Your task to perform on an android device: set default search engine in the chrome app Image 0: 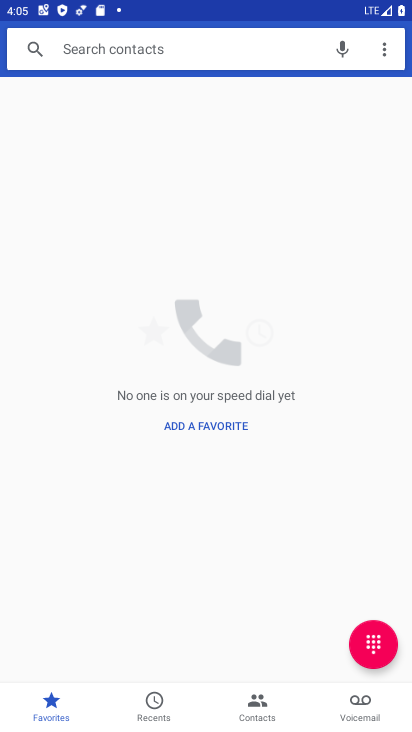
Step 0: press back button
Your task to perform on an android device: set default search engine in the chrome app Image 1: 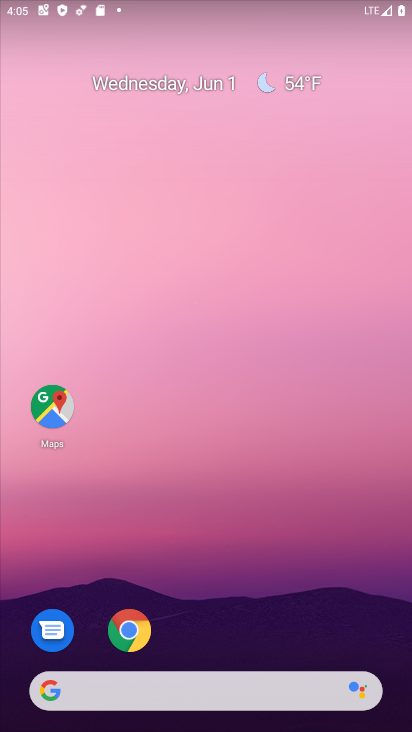
Step 1: drag from (289, 576) to (296, 34)
Your task to perform on an android device: set default search engine in the chrome app Image 2: 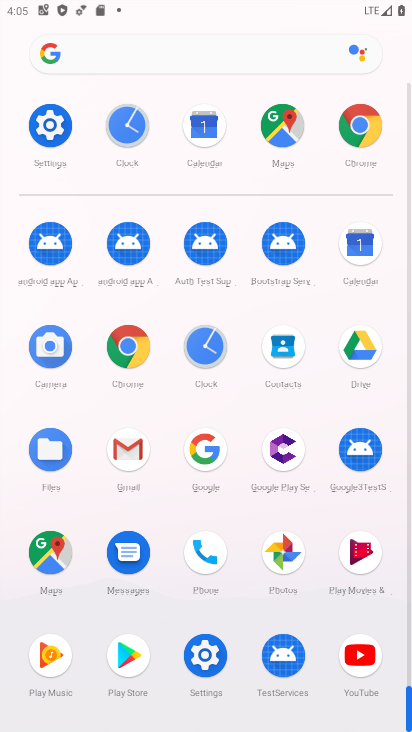
Step 2: drag from (13, 579) to (11, 204)
Your task to perform on an android device: set default search engine in the chrome app Image 3: 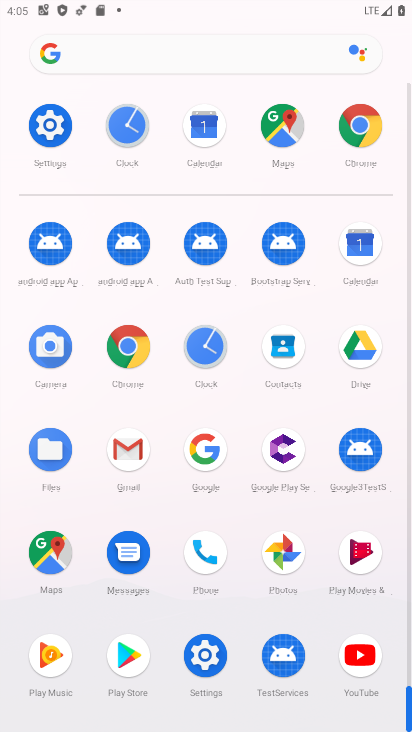
Step 3: click (127, 340)
Your task to perform on an android device: set default search engine in the chrome app Image 4: 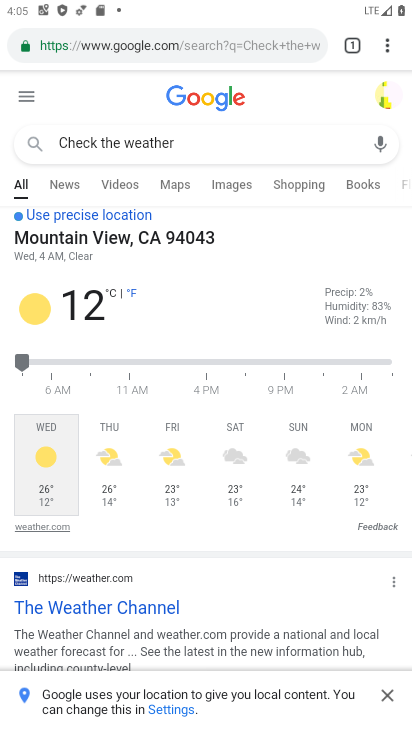
Step 4: drag from (384, 42) to (221, 506)
Your task to perform on an android device: set default search engine in the chrome app Image 5: 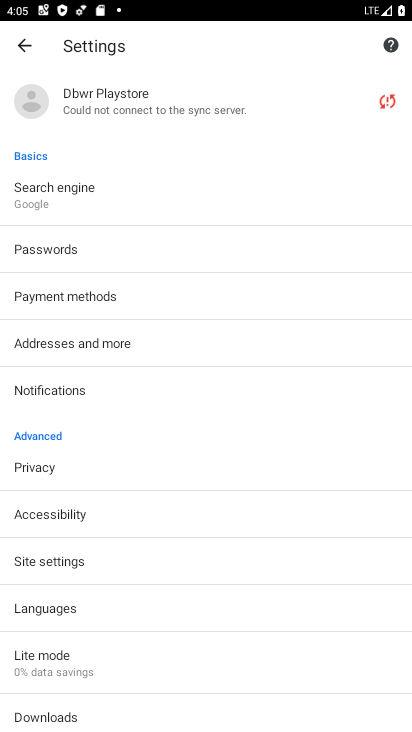
Step 5: click (92, 189)
Your task to perform on an android device: set default search engine in the chrome app Image 6: 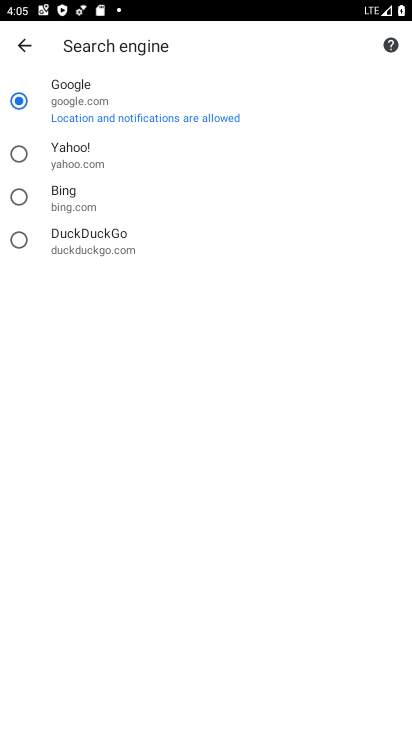
Step 6: click (109, 102)
Your task to perform on an android device: set default search engine in the chrome app Image 7: 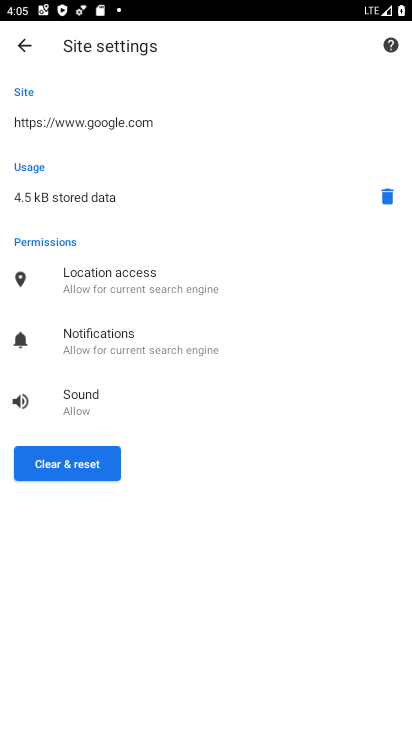
Step 7: click (21, 55)
Your task to perform on an android device: set default search engine in the chrome app Image 8: 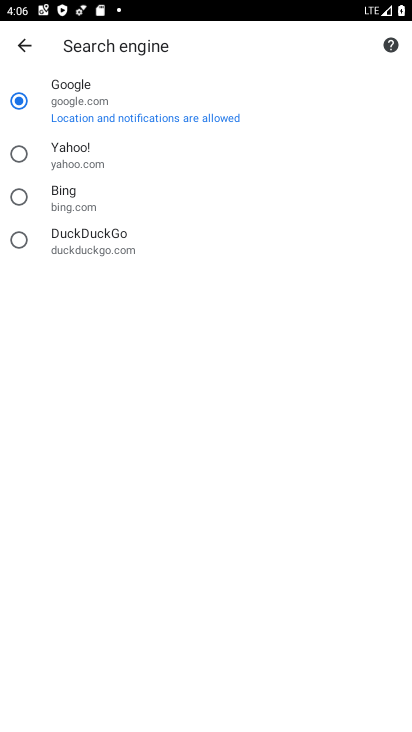
Step 8: task complete